Your task to perform on an android device: toggle show notifications on the lock screen Image 0: 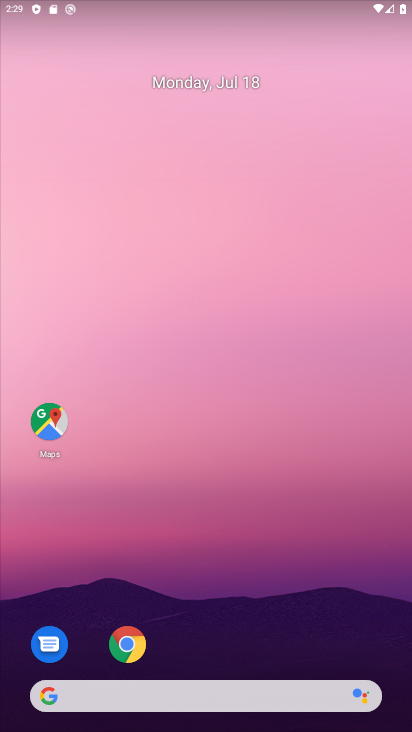
Step 0: drag from (237, 701) to (40, 24)
Your task to perform on an android device: toggle show notifications on the lock screen Image 1: 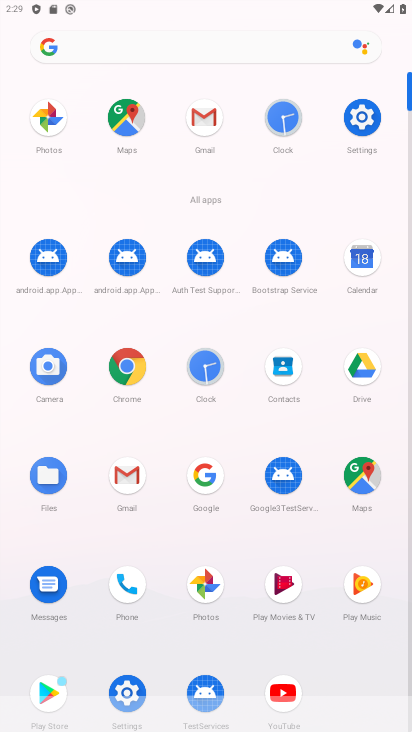
Step 1: click (368, 135)
Your task to perform on an android device: toggle show notifications on the lock screen Image 2: 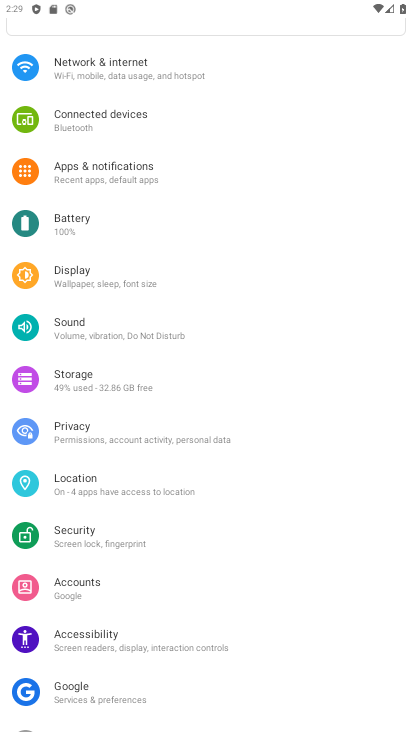
Step 2: click (108, 176)
Your task to perform on an android device: toggle show notifications on the lock screen Image 3: 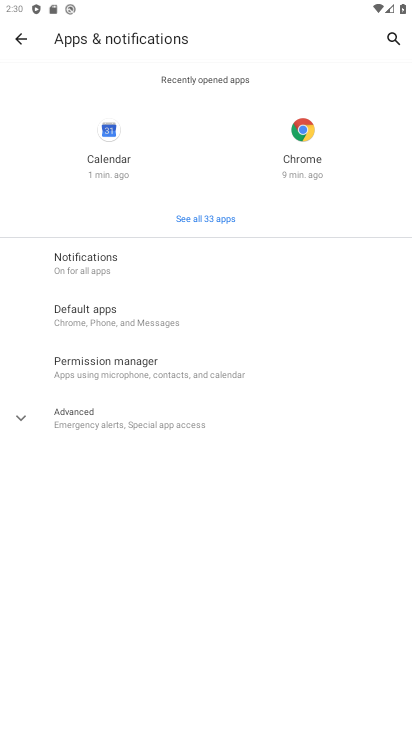
Step 3: click (108, 278)
Your task to perform on an android device: toggle show notifications on the lock screen Image 4: 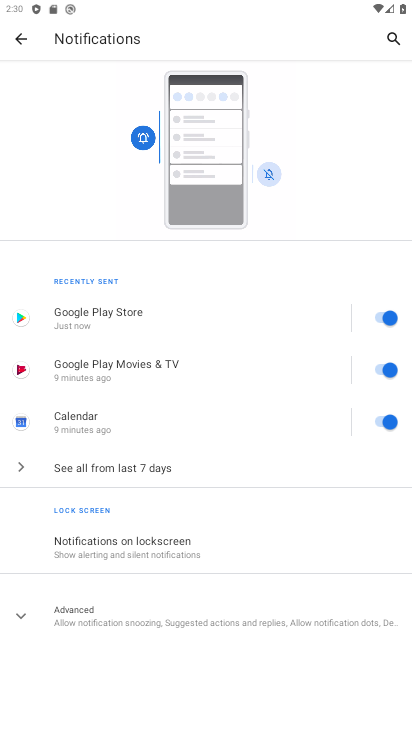
Step 4: click (143, 545)
Your task to perform on an android device: toggle show notifications on the lock screen Image 5: 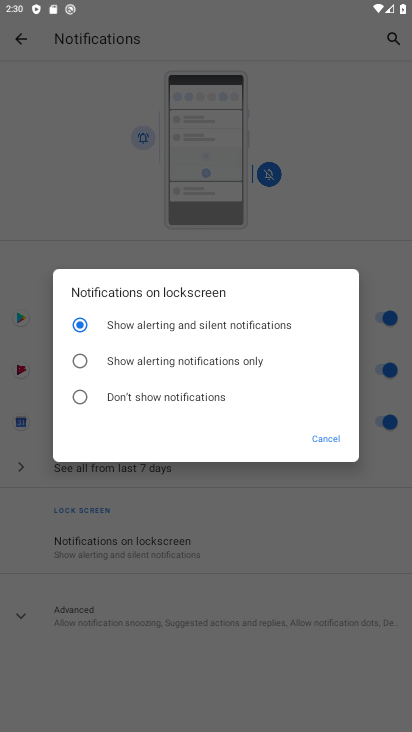
Step 5: click (230, 331)
Your task to perform on an android device: toggle show notifications on the lock screen Image 6: 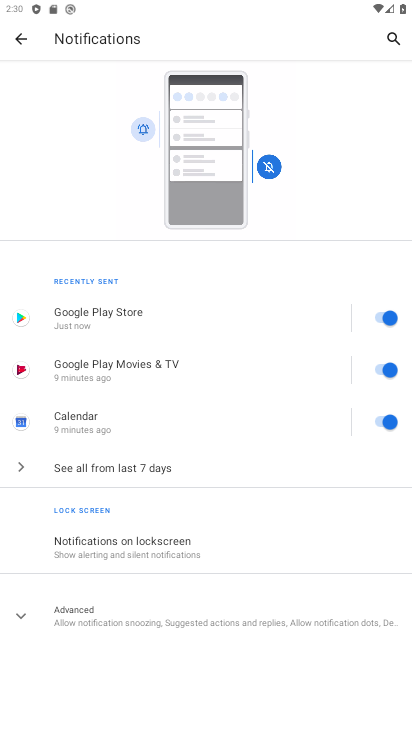
Step 6: task complete